Your task to perform on an android device: turn on sleep mode Image 0: 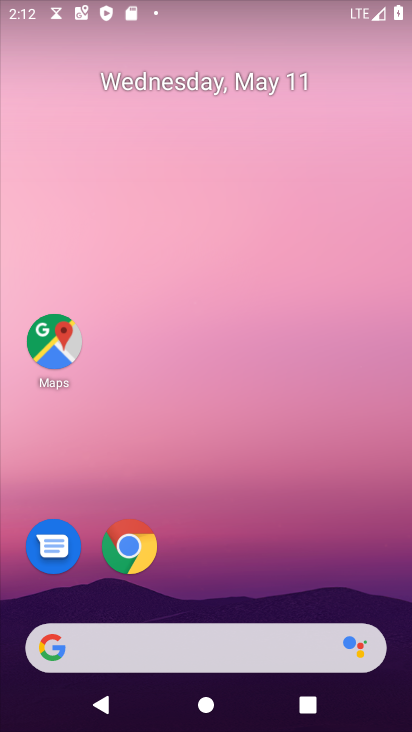
Step 0: drag from (266, 655) to (284, 1)
Your task to perform on an android device: turn on sleep mode Image 1: 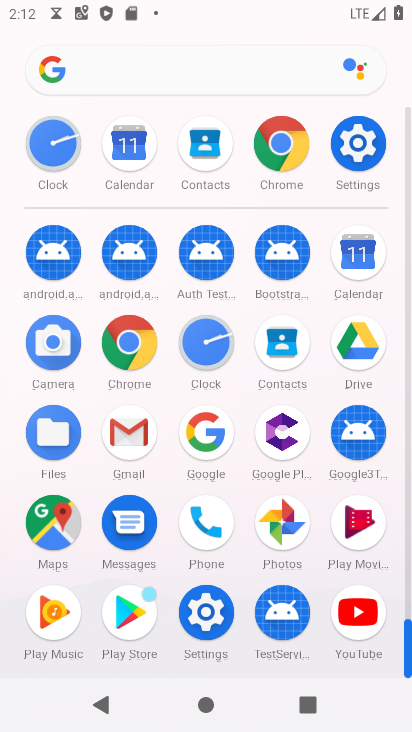
Step 1: click (354, 161)
Your task to perform on an android device: turn on sleep mode Image 2: 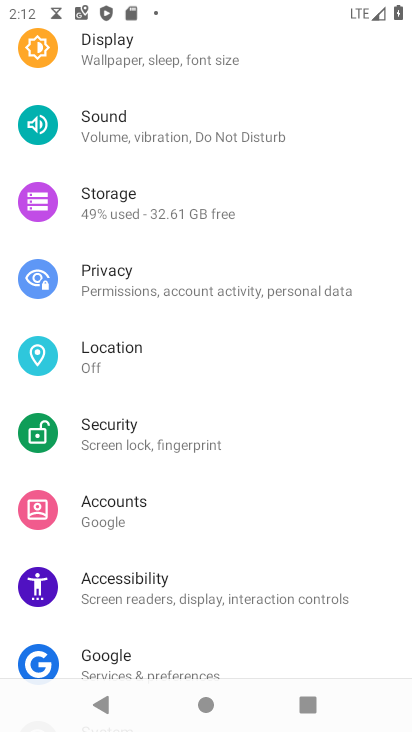
Step 2: task complete